Your task to perform on an android device: Go to eBay Image 0: 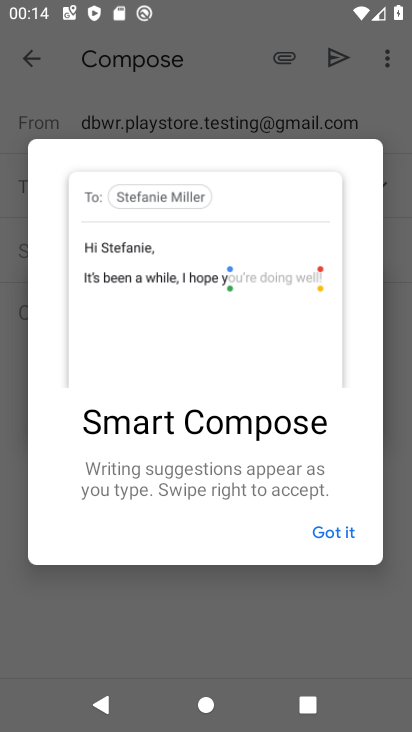
Step 0: press home button
Your task to perform on an android device: Go to eBay Image 1: 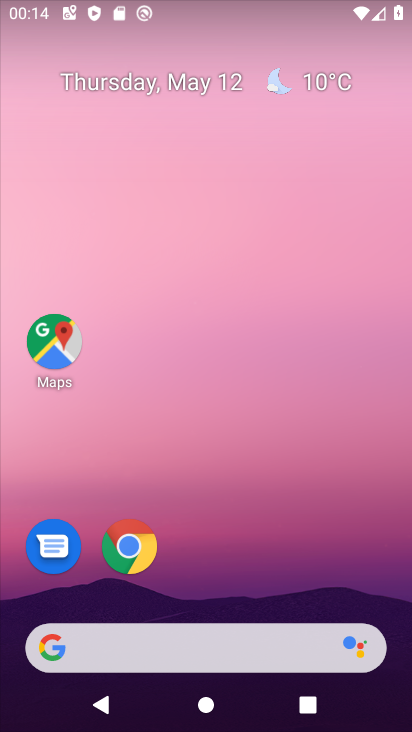
Step 1: click (130, 549)
Your task to perform on an android device: Go to eBay Image 2: 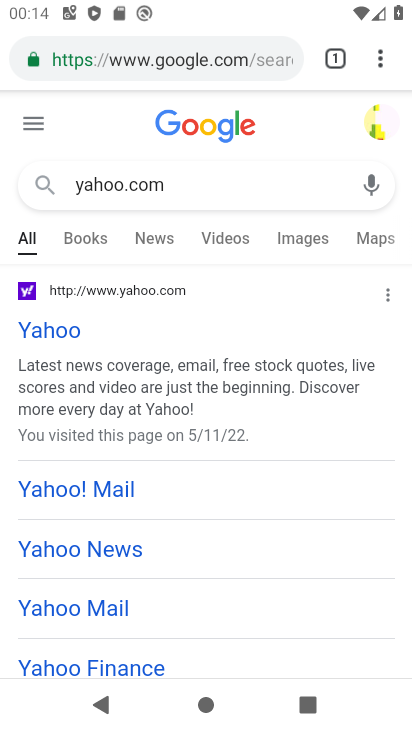
Step 2: click (141, 61)
Your task to perform on an android device: Go to eBay Image 3: 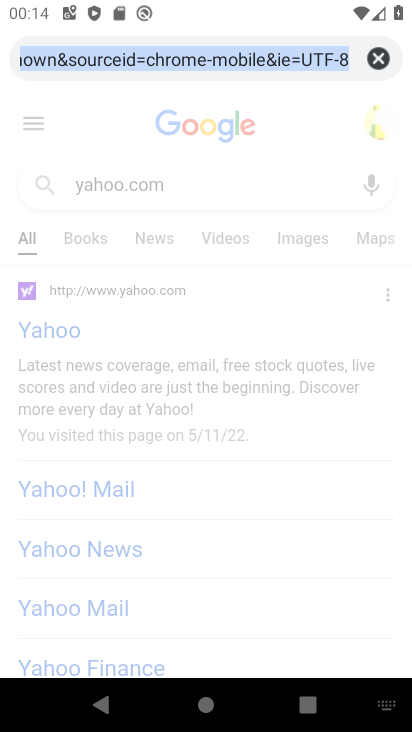
Step 3: type "eBay"
Your task to perform on an android device: Go to eBay Image 4: 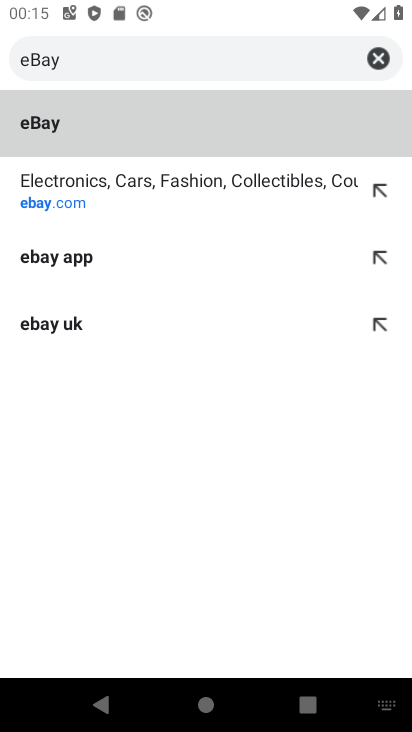
Step 4: click (180, 127)
Your task to perform on an android device: Go to eBay Image 5: 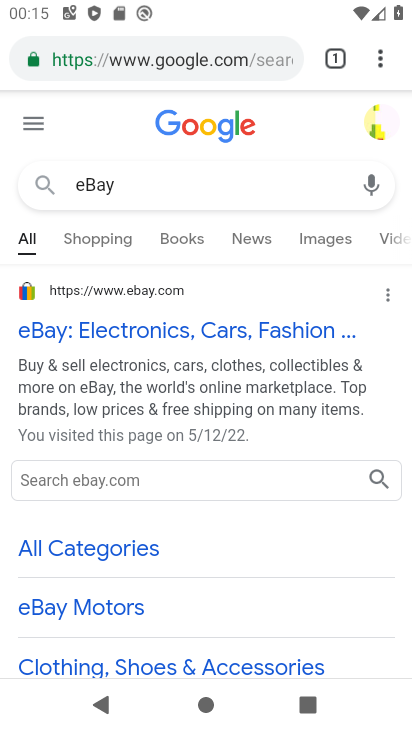
Step 5: task complete